Your task to perform on an android device: turn on sleep mode Image 0: 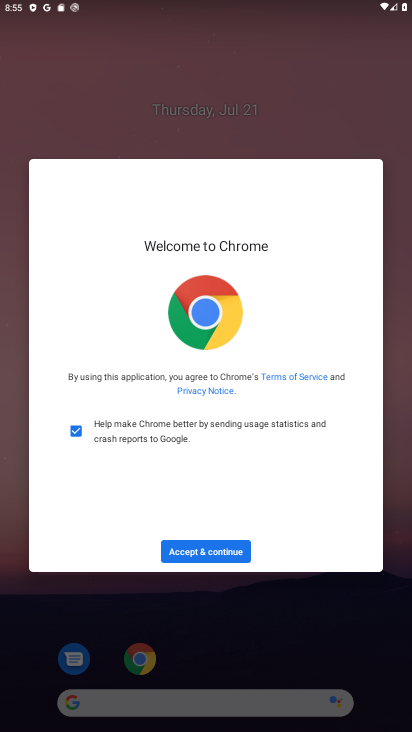
Step 0: click (187, 554)
Your task to perform on an android device: turn on sleep mode Image 1: 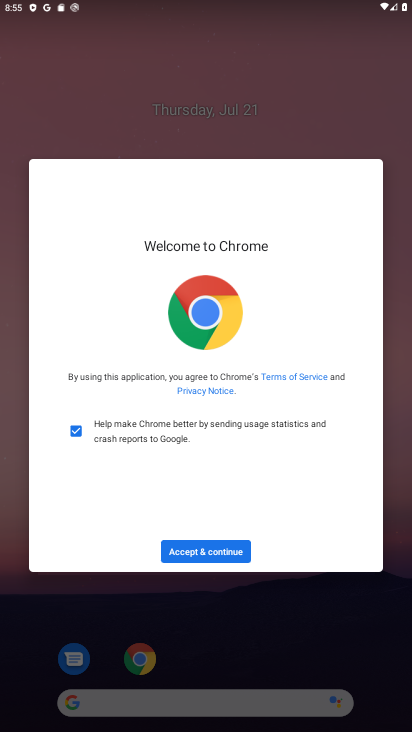
Step 1: press home button
Your task to perform on an android device: turn on sleep mode Image 2: 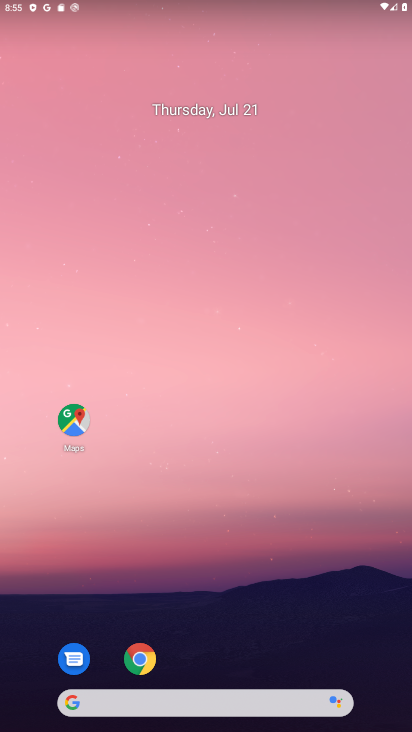
Step 2: press home button
Your task to perform on an android device: turn on sleep mode Image 3: 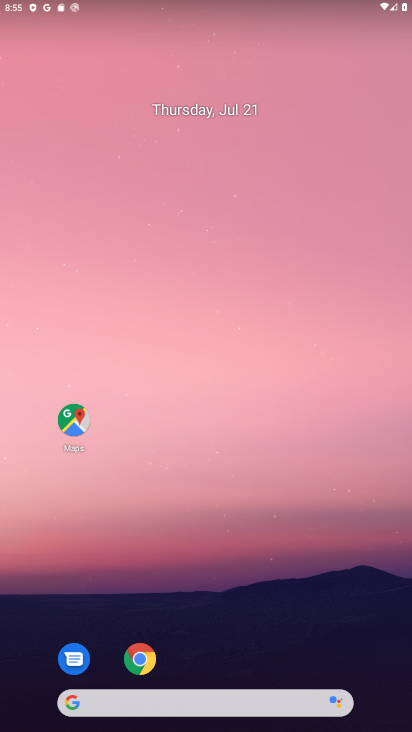
Step 3: press home button
Your task to perform on an android device: turn on sleep mode Image 4: 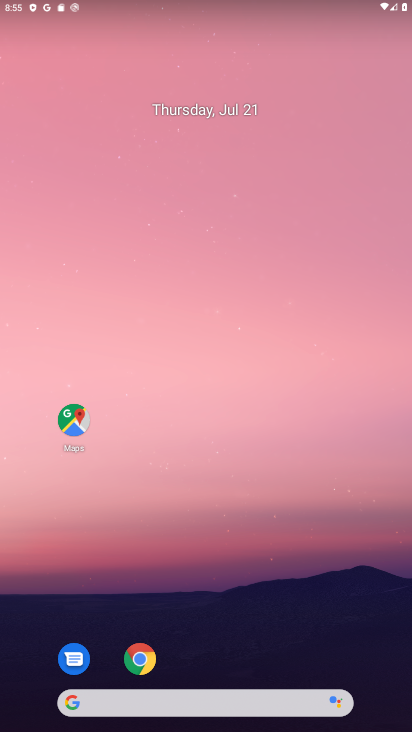
Step 4: click (295, 124)
Your task to perform on an android device: turn on sleep mode Image 5: 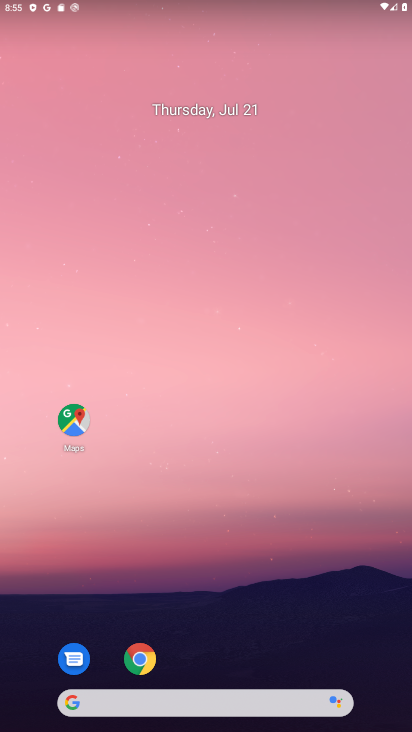
Step 5: drag from (238, 638) to (237, 83)
Your task to perform on an android device: turn on sleep mode Image 6: 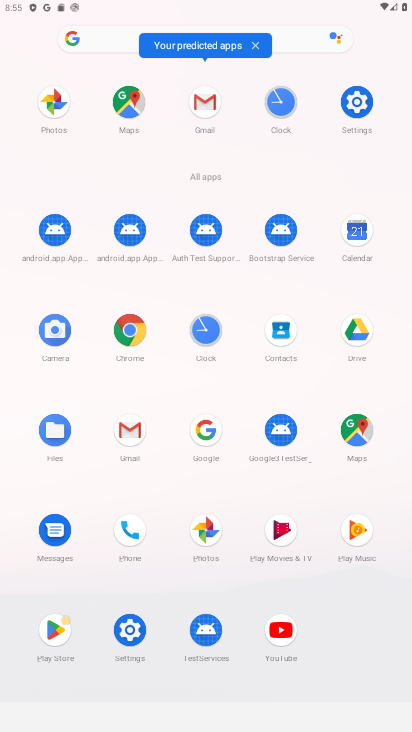
Step 6: click (121, 652)
Your task to perform on an android device: turn on sleep mode Image 7: 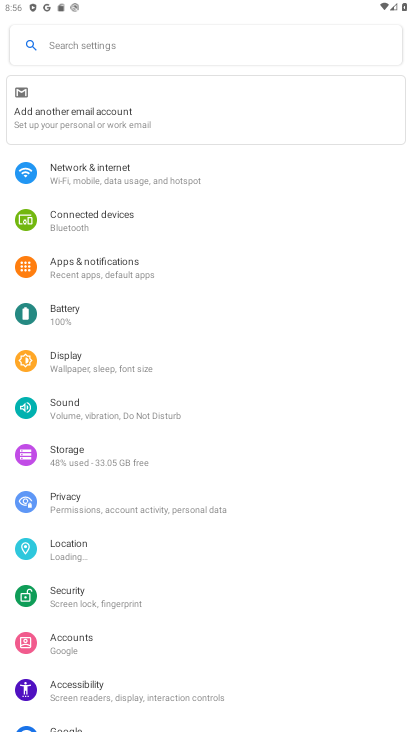
Step 7: click (96, 362)
Your task to perform on an android device: turn on sleep mode Image 8: 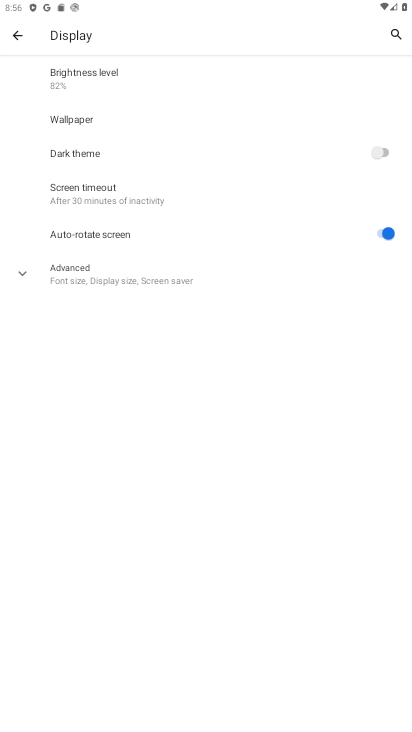
Step 8: task complete